Your task to perform on an android device: Open Amazon Image 0: 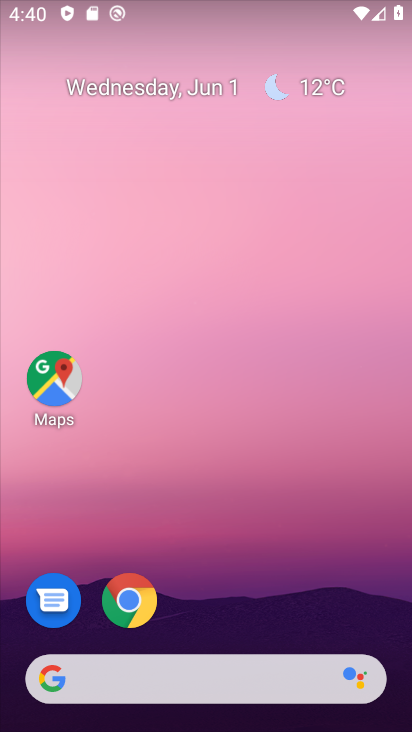
Step 0: click (130, 601)
Your task to perform on an android device: Open Amazon Image 1: 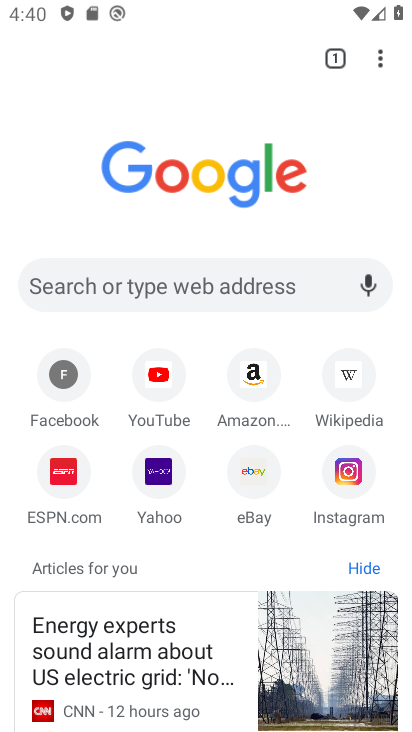
Step 1: click (255, 375)
Your task to perform on an android device: Open Amazon Image 2: 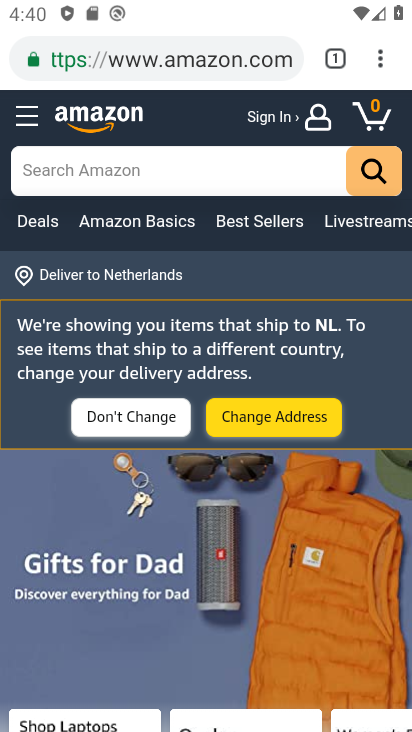
Step 2: task complete